Your task to perform on an android device: change alarm snooze length Image 0: 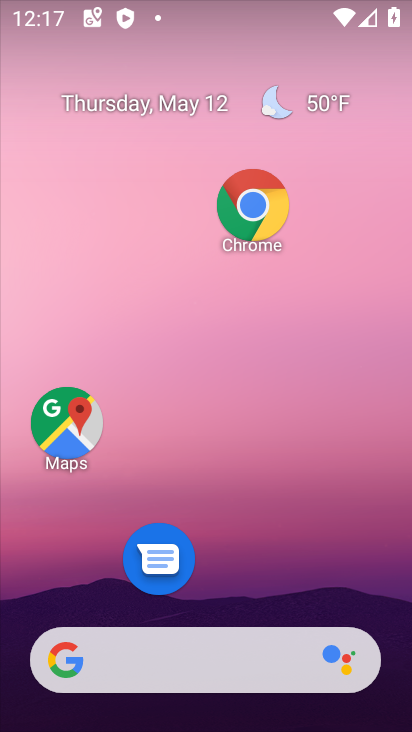
Step 0: drag from (275, 574) to (262, 193)
Your task to perform on an android device: change alarm snooze length Image 1: 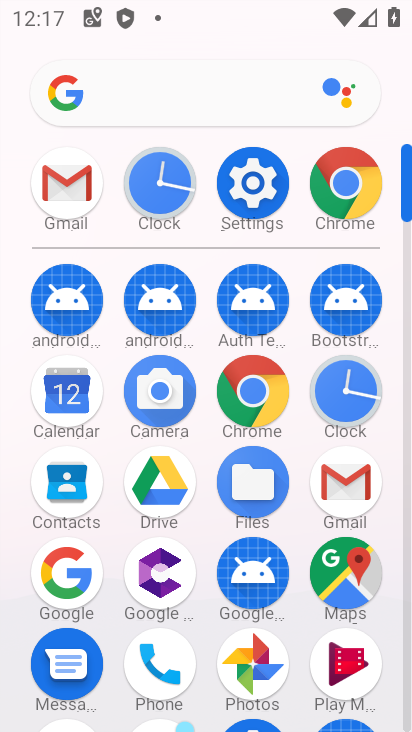
Step 1: click (351, 419)
Your task to perform on an android device: change alarm snooze length Image 2: 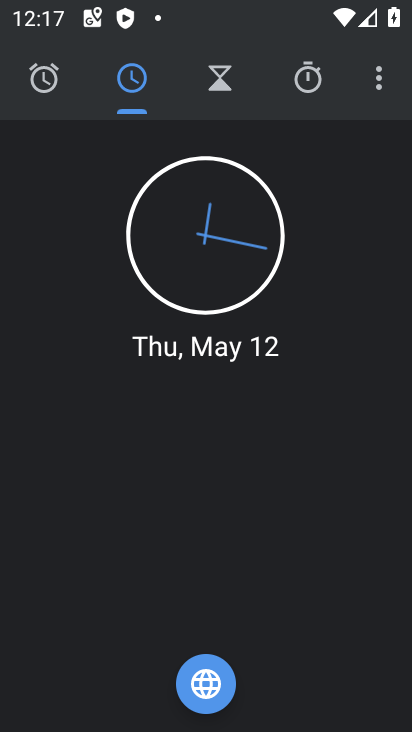
Step 2: click (384, 79)
Your task to perform on an android device: change alarm snooze length Image 3: 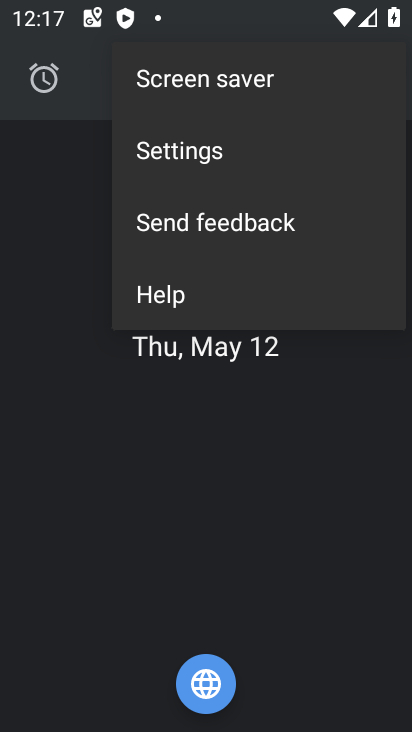
Step 3: click (230, 148)
Your task to perform on an android device: change alarm snooze length Image 4: 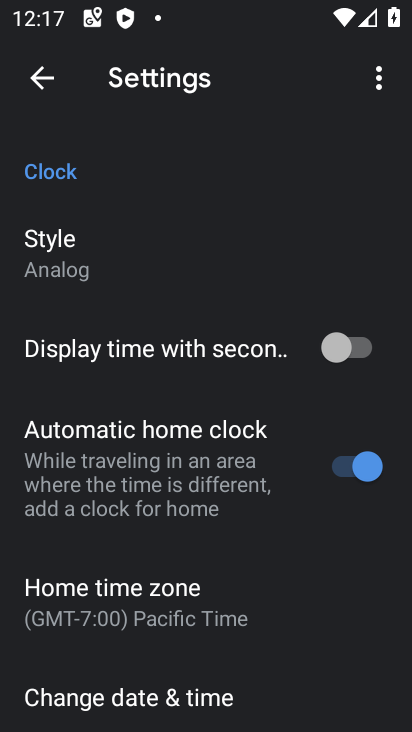
Step 4: drag from (206, 645) to (260, 278)
Your task to perform on an android device: change alarm snooze length Image 5: 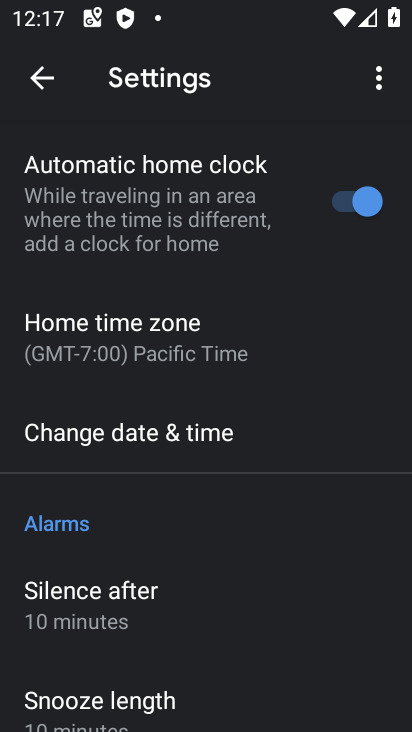
Step 5: drag from (220, 650) to (253, 313)
Your task to perform on an android device: change alarm snooze length Image 6: 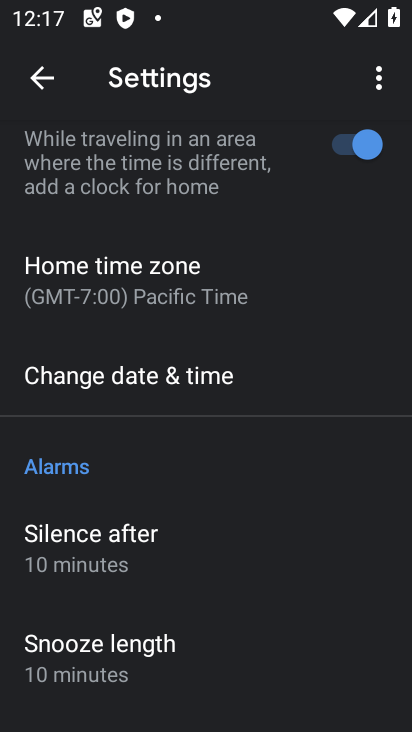
Step 6: click (134, 662)
Your task to perform on an android device: change alarm snooze length Image 7: 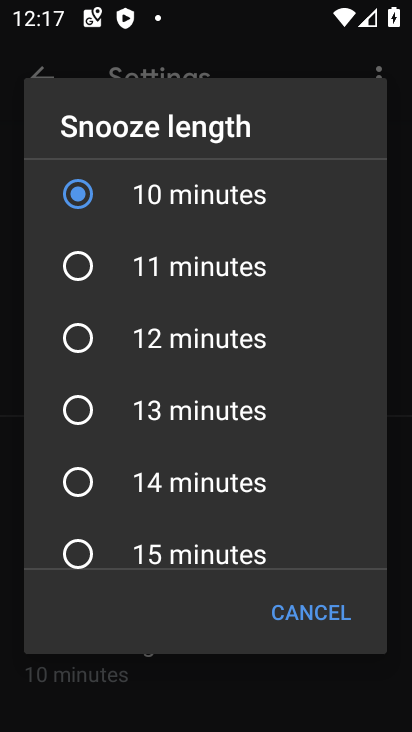
Step 7: click (99, 278)
Your task to perform on an android device: change alarm snooze length Image 8: 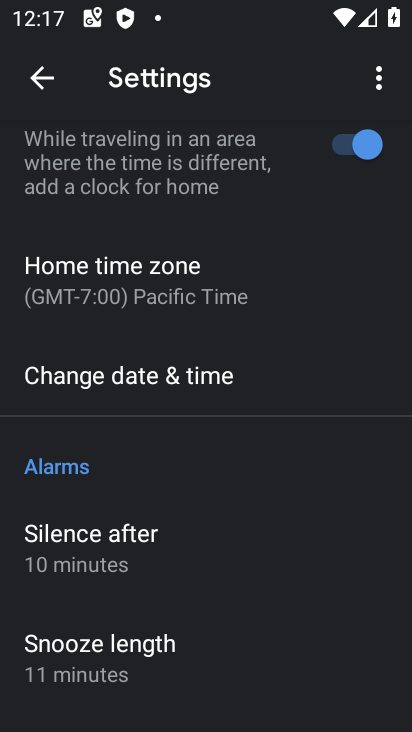
Step 8: task complete